Your task to perform on an android device: toggle priority inbox in the gmail app Image 0: 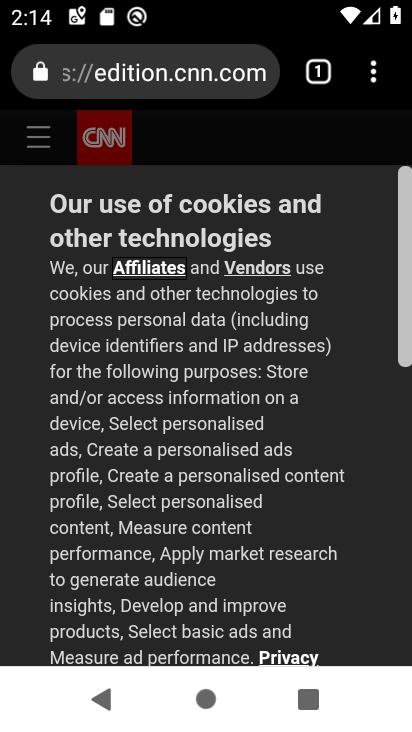
Step 0: press home button
Your task to perform on an android device: toggle priority inbox in the gmail app Image 1: 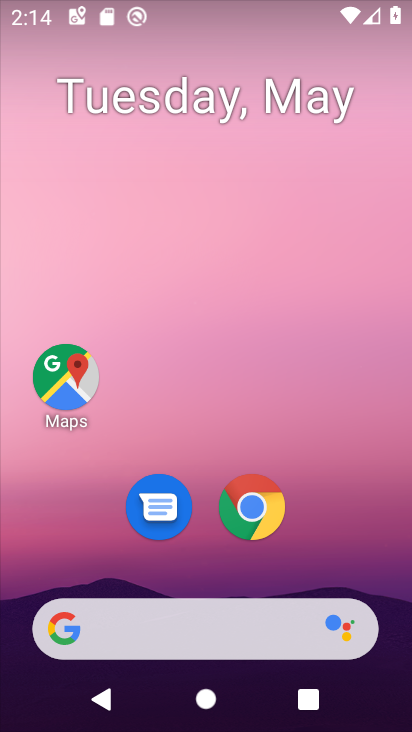
Step 1: drag from (206, 571) to (217, 223)
Your task to perform on an android device: toggle priority inbox in the gmail app Image 2: 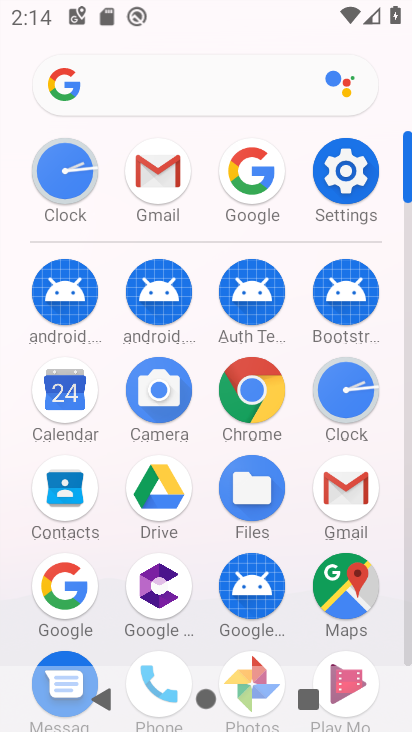
Step 2: click (176, 189)
Your task to perform on an android device: toggle priority inbox in the gmail app Image 3: 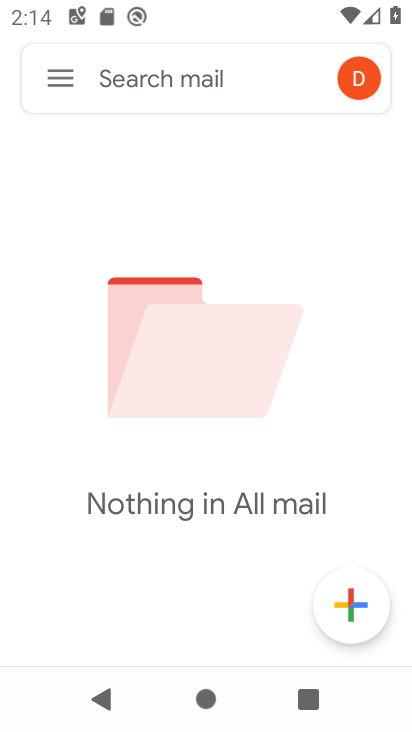
Step 3: click (61, 86)
Your task to perform on an android device: toggle priority inbox in the gmail app Image 4: 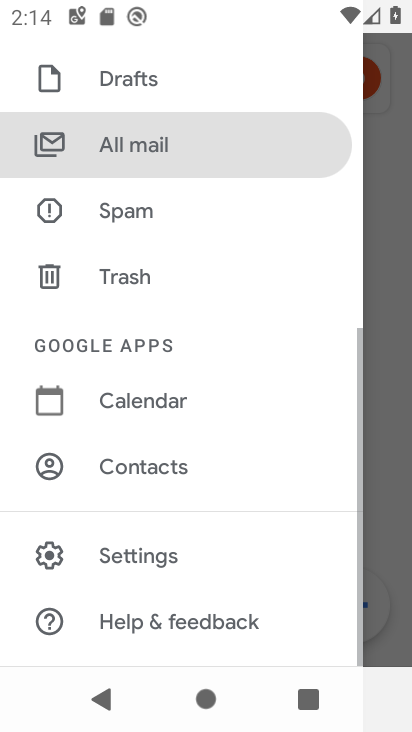
Step 4: click (162, 550)
Your task to perform on an android device: toggle priority inbox in the gmail app Image 5: 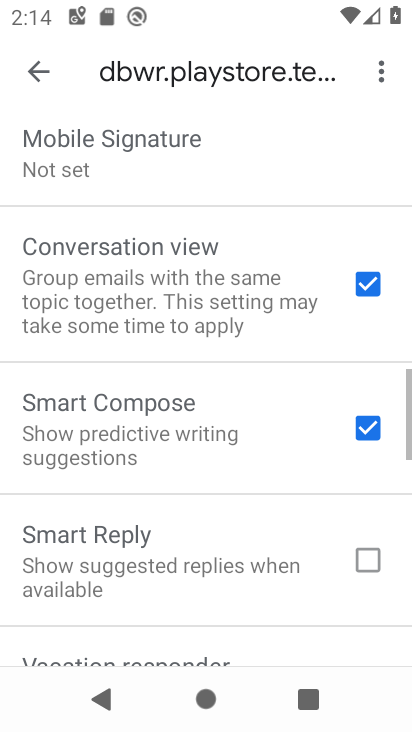
Step 5: drag from (161, 515) to (233, 180)
Your task to perform on an android device: toggle priority inbox in the gmail app Image 6: 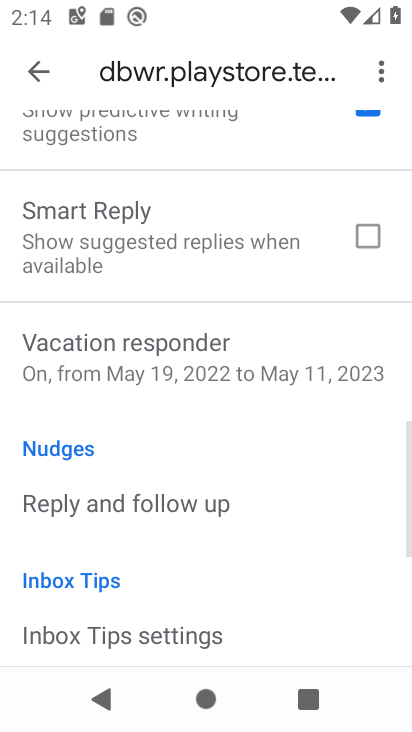
Step 6: drag from (228, 523) to (197, 164)
Your task to perform on an android device: toggle priority inbox in the gmail app Image 7: 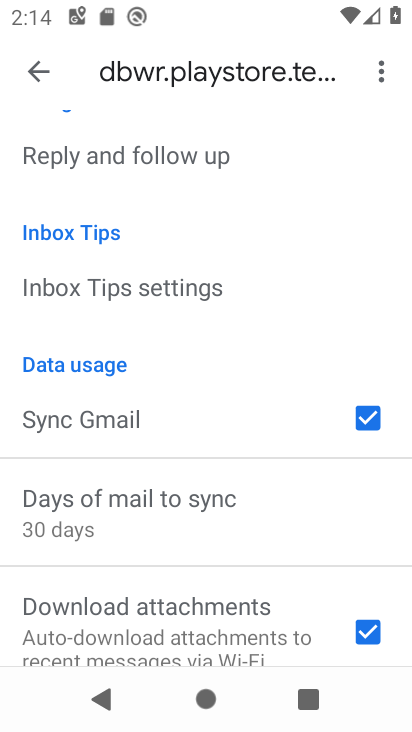
Step 7: drag from (177, 528) to (202, 278)
Your task to perform on an android device: toggle priority inbox in the gmail app Image 8: 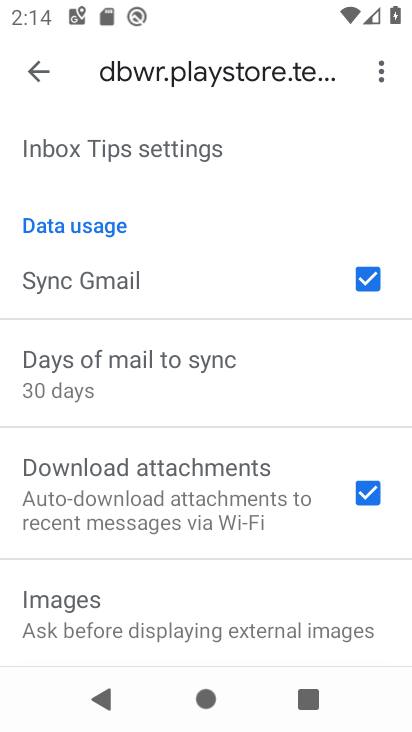
Step 8: drag from (204, 183) to (226, 588)
Your task to perform on an android device: toggle priority inbox in the gmail app Image 9: 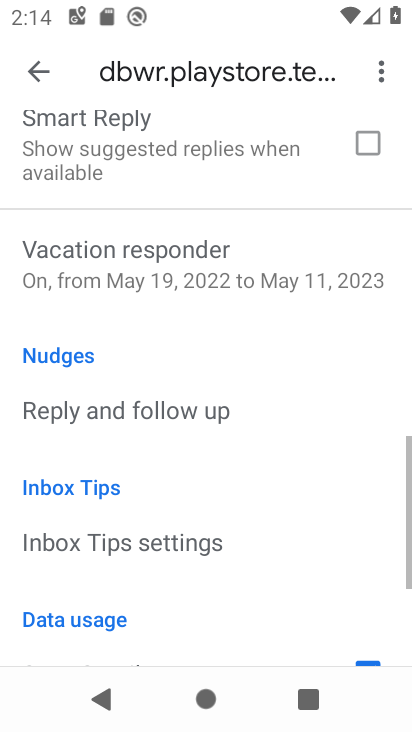
Step 9: drag from (217, 188) to (219, 454)
Your task to perform on an android device: toggle priority inbox in the gmail app Image 10: 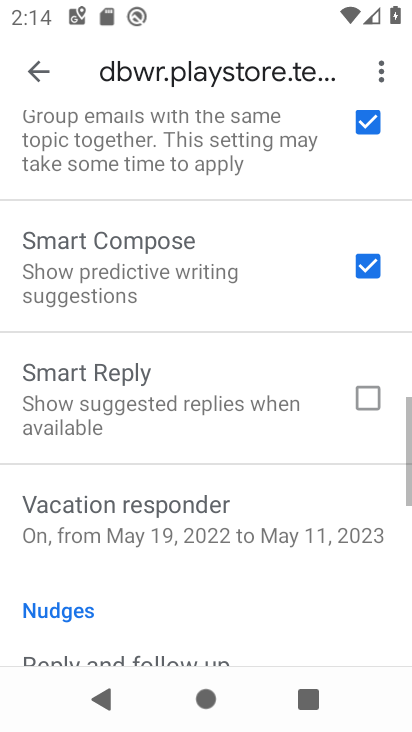
Step 10: drag from (217, 212) to (217, 408)
Your task to perform on an android device: toggle priority inbox in the gmail app Image 11: 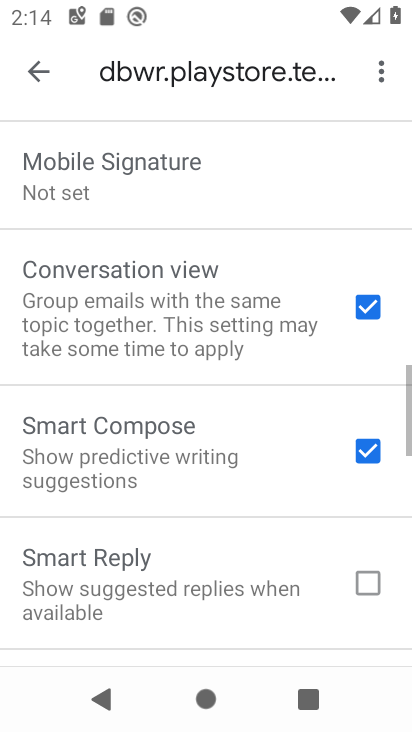
Step 11: drag from (223, 284) to (223, 490)
Your task to perform on an android device: toggle priority inbox in the gmail app Image 12: 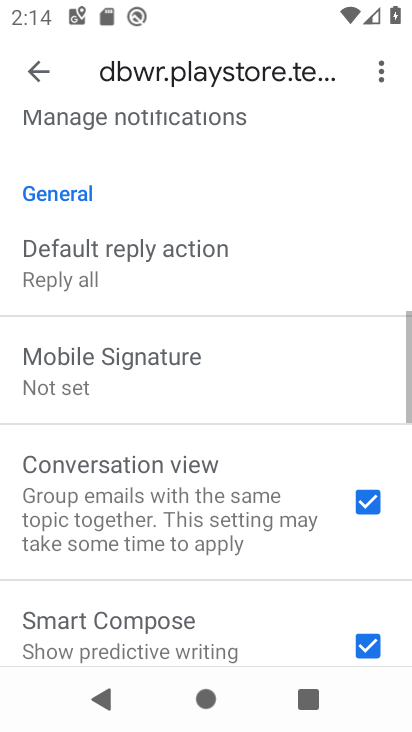
Step 12: drag from (220, 275) to (220, 508)
Your task to perform on an android device: toggle priority inbox in the gmail app Image 13: 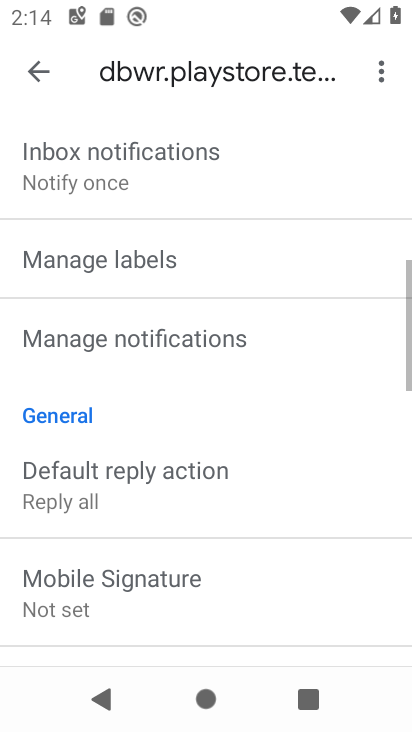
Step 13: drag from (204, 322) to (204, 516)
Your task to perform on an android device: toggle priority inbox in the gmail app Image 14: 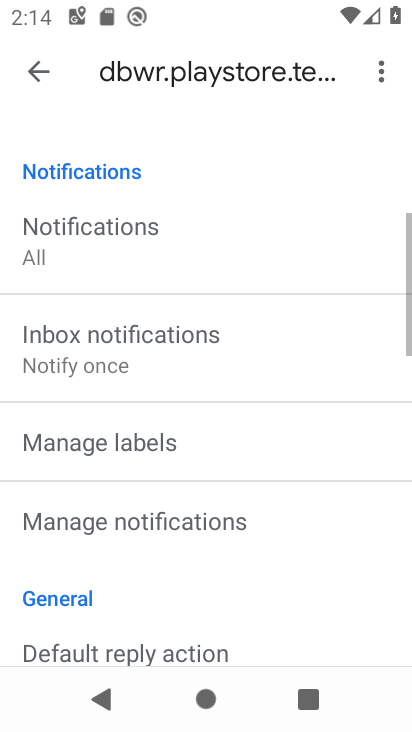
Step 14: drag from (202, 314) to (202, 541)
Your task to perform on an android device: toggle priority inbox in the gmail app Image 15: 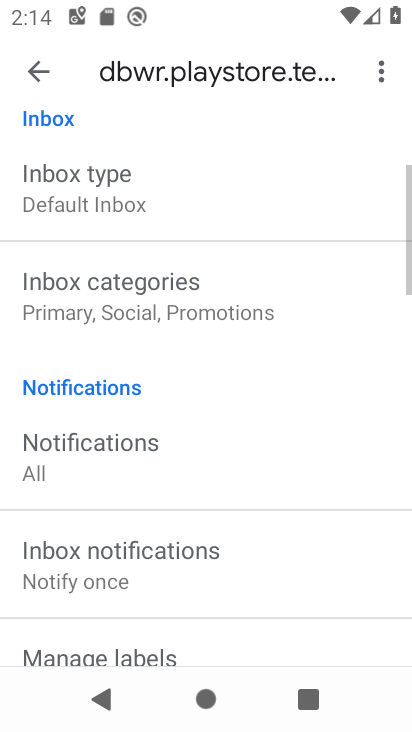
Step 15: drag from (210, 240) to (229, 424)
Your task to perform on an android device: toggle priority inbox in the gmail app Image 16: 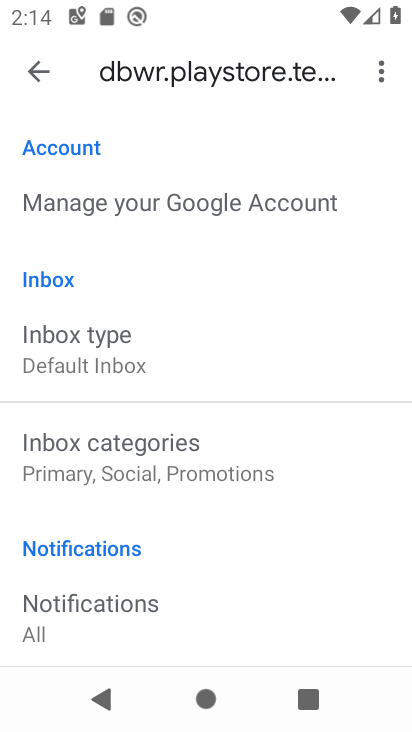
Step 16: drag from (192, 253) to (193, 323)
Your task to perform on an android device: toggle priority inbox in the gmail app Image 17: 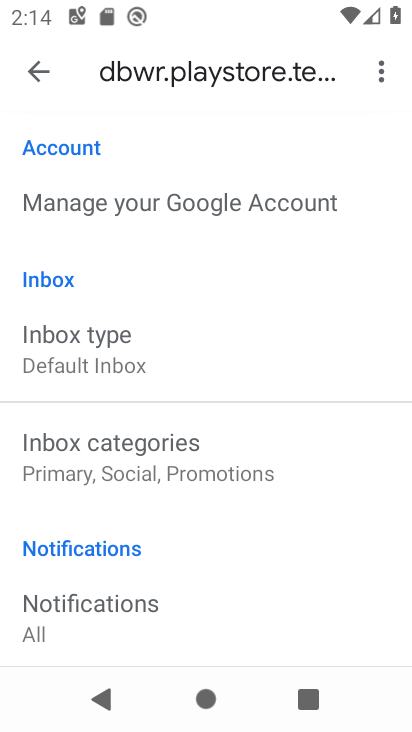
Step 17: click (134, 357)
Your task to perform on an android device: toggle priority inbox in the gmail app Image 18: 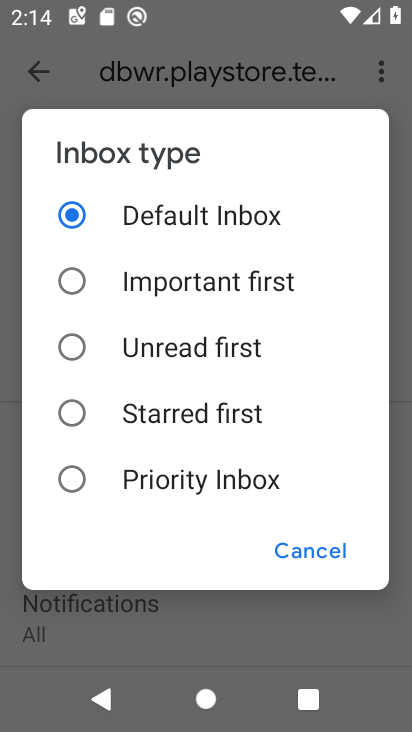
Step 18: click (161, 456)
Your task to perform on an android device: toggle priority inbox in the gmail app Image 19: 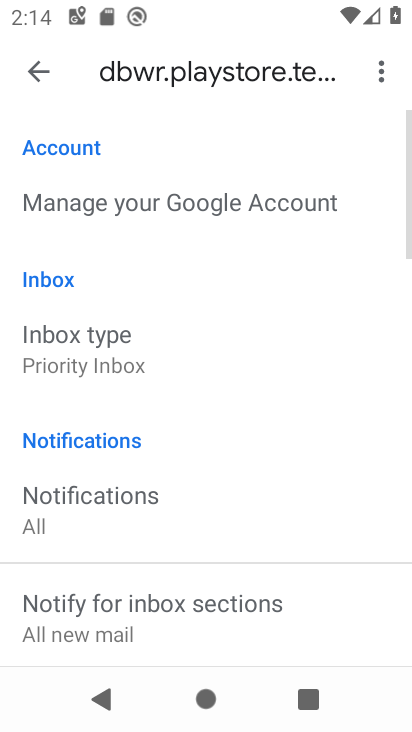
Step 19: task complete